Your task to perform on an android device: Clear the shopping cart on costco. Add "amazon basics triple a" to the cart on costco, then select checkout. Image 0: 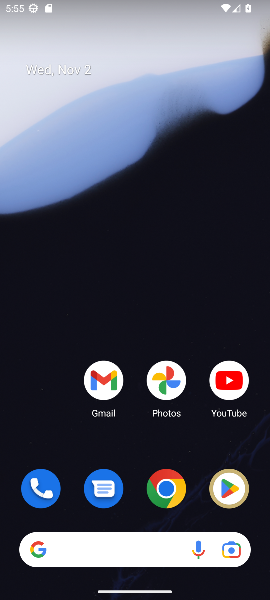
Step 0: click (154, 492)
Your task to perform on an android device: Clear the shopping cart on costco. Add "amazon basics triple a" to the cart on costco, then select checkout. Image 1: 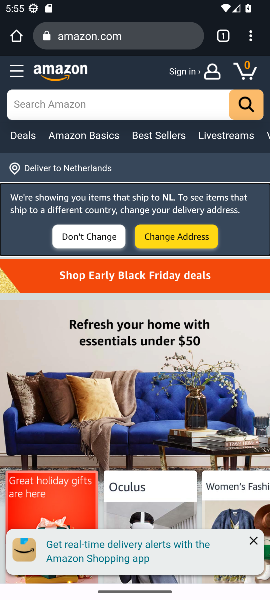
Step 1: click (120, 44)
Your task to perform on an android device: Clear the shopping cart on costco. Add "amazon basics triple a" to the cart on costco, then select checkout. Image 2: 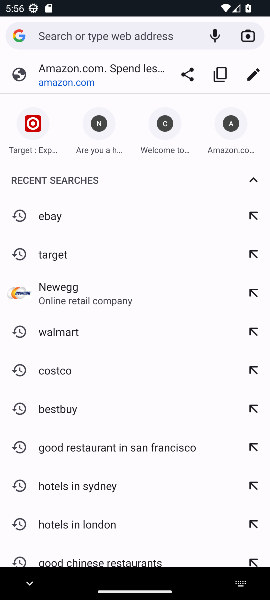
Step 2: type "costco"
Your task to perform on an android device: Clear the shopping cart on costco. Add "amazon basics triple a" to the cart on costco, then select checkout. Image 3: 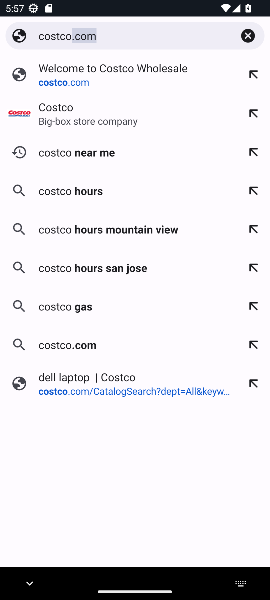
Step 3: click (89, 76)
Your task to perform on an android device: Clear the shopping cart on costco. Add "amazon basics triple a" to the cart on costco, then select checkout. Image 4: 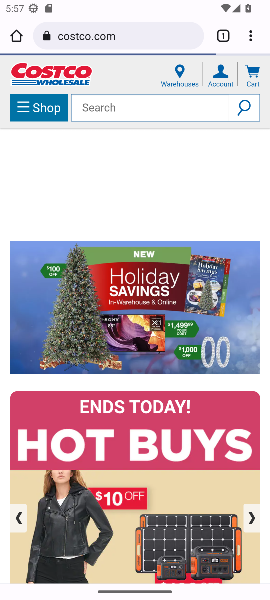
Step 4: click (187, 111)
Your task to perform on an android device: Clear the shopping cart on costco. Add "amazon basics triple a" to the cart on costco, then select checkout. Image 5: 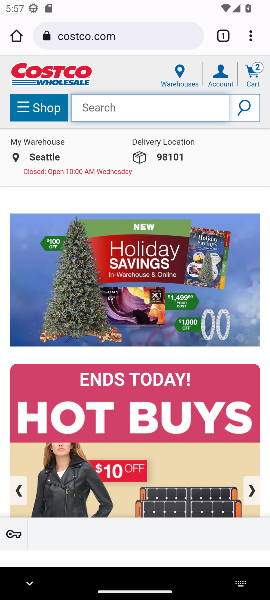
Step 5: type "amazon basic triple a"
Your task to perform on an android device: Clear the shopping cart on costco. Add "amazon basics triple a" to the cart on costco, then select checkout. Image 6: 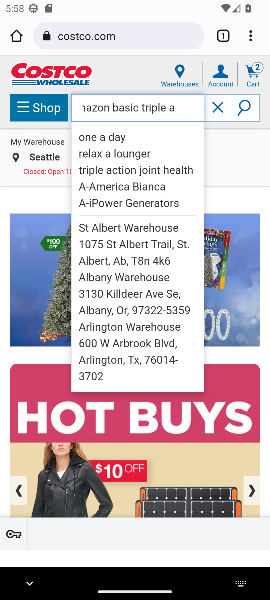
Step 6: click (109, 142)
Your task to perform on an android device: Clear the shopping cart on costco. Add "amazon basics triple a" to the cart on costco, then select checkout. Image 7: 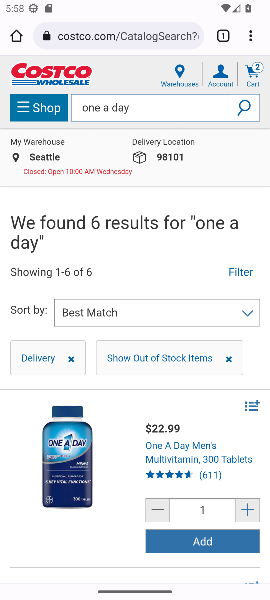
Step 7: click (197, 545)
Your task to perform on an android device: Clear the shopping cart on costco. Add "amazon basics triple a" to the cart on costco, then select checkout. Image 8: 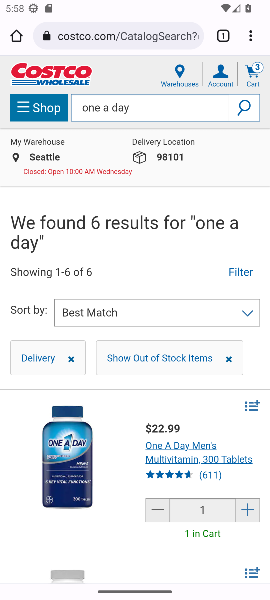
Step 8: click (252, 74)
Your task to perform on an android device: Clear the shopping cart on costco. Add "amazon basics triple a" to the cart on costco, then select checkout. Image 9: 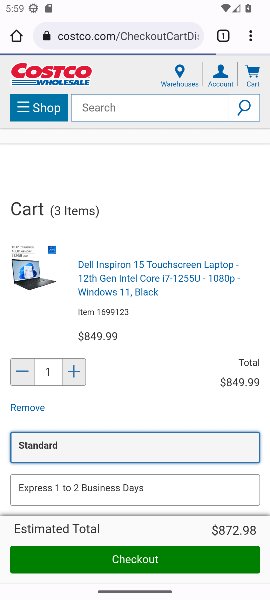
Step 9: task complete